Your task to perform on an android device: check google app version Image 0: 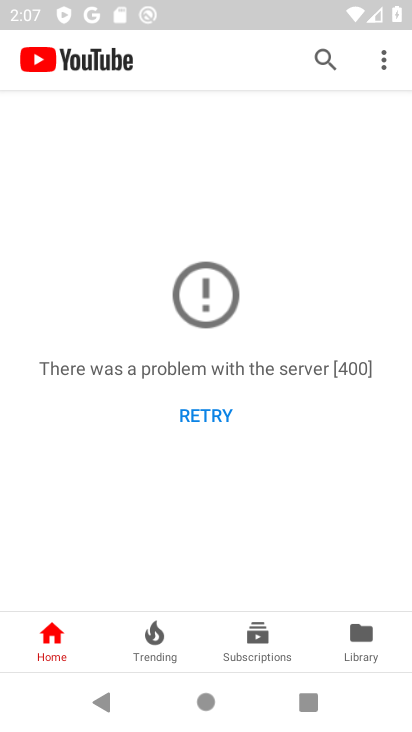
Step 0: press home button
Your task to perform on an android device: check google app version Image 1: 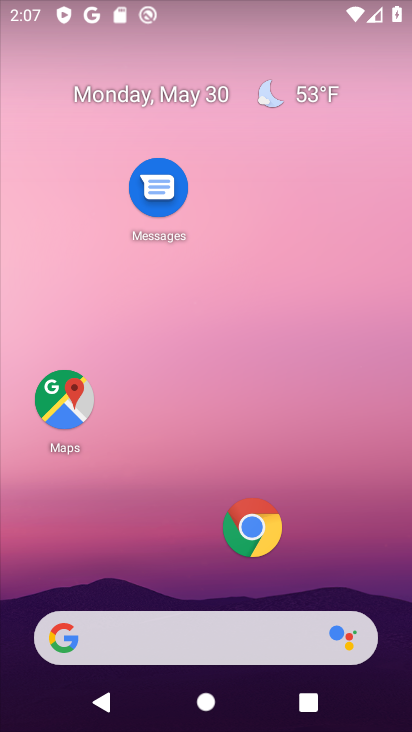
Step 1: drag from (197, 569) to (291, 175)
Your task to perform on an android device: check google app version Image 2: 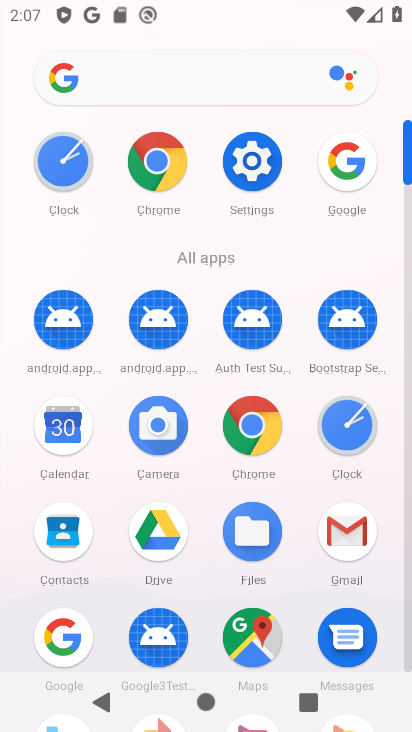
Step 2: click (66, 634)
Your task to perform on an android device: check google app version Image 3: 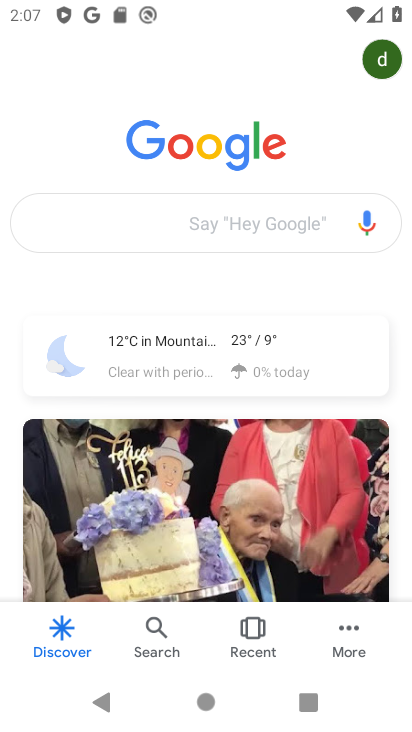
Step 3: click (358, 648)
Your task to perform on an android device: check google app version Image 4: 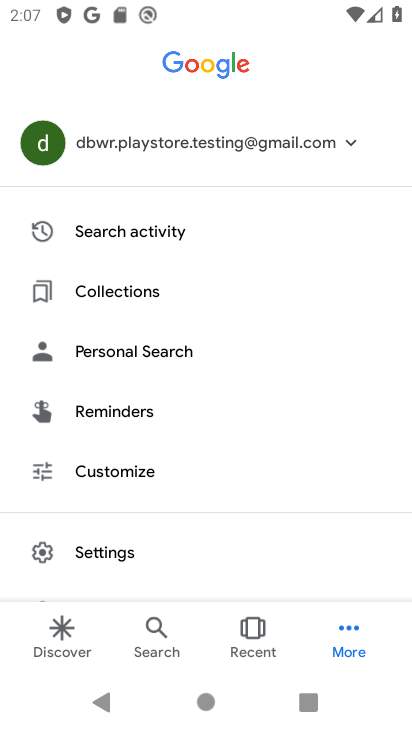
Step 4: click (135, 556)
Your task to perform on an android device: check google app version Image 5: 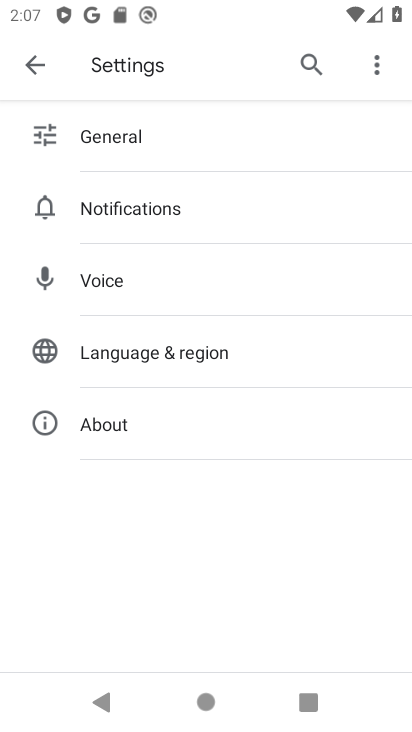
Step 5: click (136, 442)
Your task to perform on an android device: check google app version Image 6: 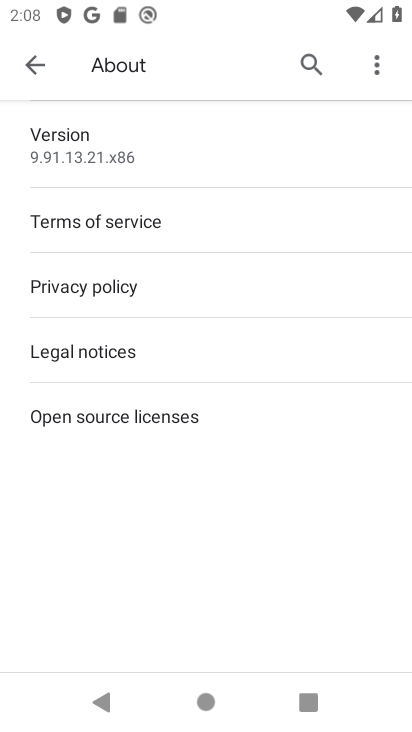
Step 6: task complete